Your task to perform on an android device: Open calendar and show me the third week of next month Image 0: 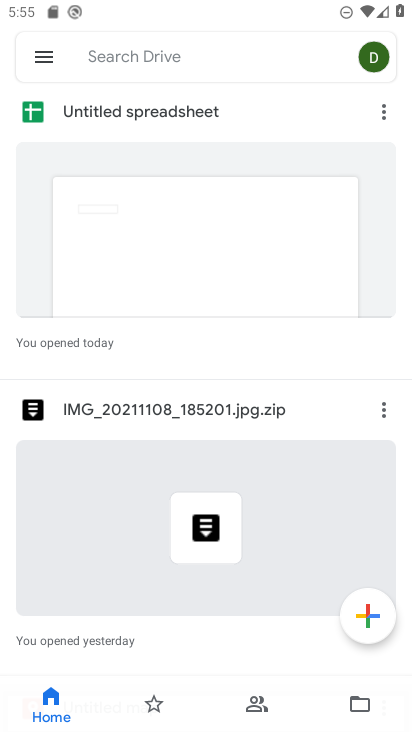
Step 0: press home button
Your task to perform on an android device: Open calendar and show me the third week of next month Image 1: 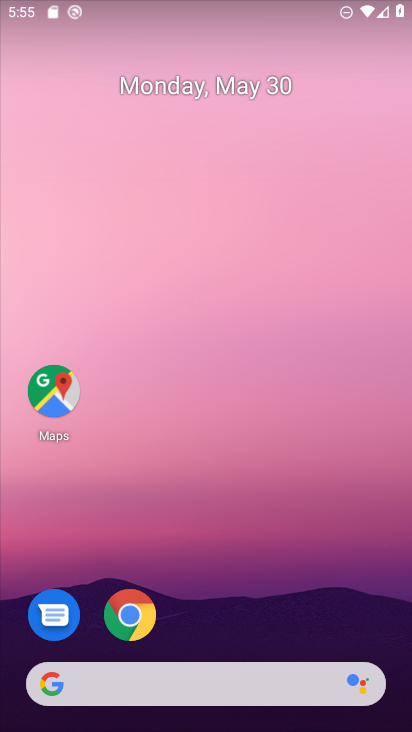
Step 1: click (182, 104)
Your task to perform on an android device: Open calendar and show me the third week of next month Image 2: 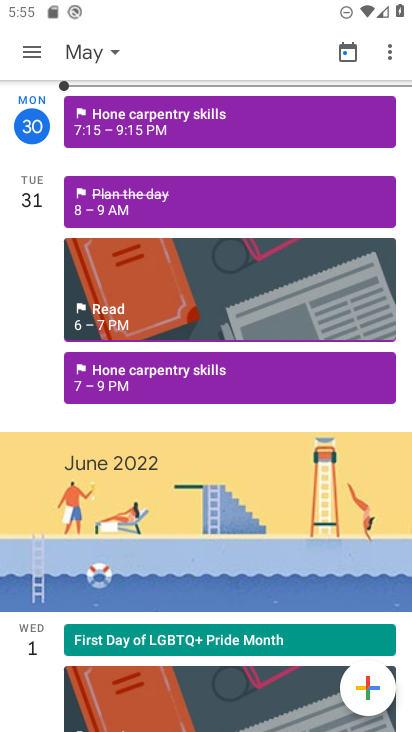
Step 2: click (116, 74)
Your task to perform on an android device: Open calendar and show me the third week of next month Image 3: 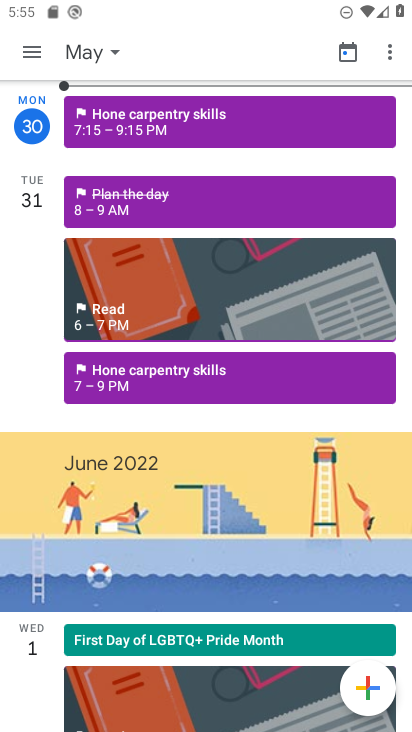
Step 3: click (89, 61)
Your task to perform on an android device: Open calendar and show me the third week of next month Image 4: 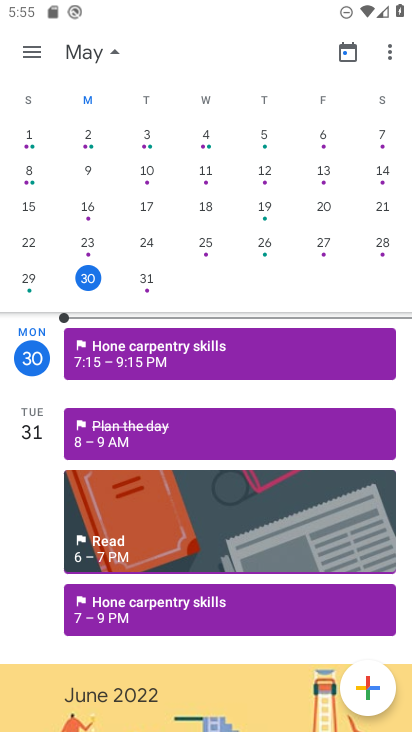
Step 4: drag from (384, 275) to (35, 268)
Your task to perform on an android device: Open calendar and show me the third week of next month Image 5: 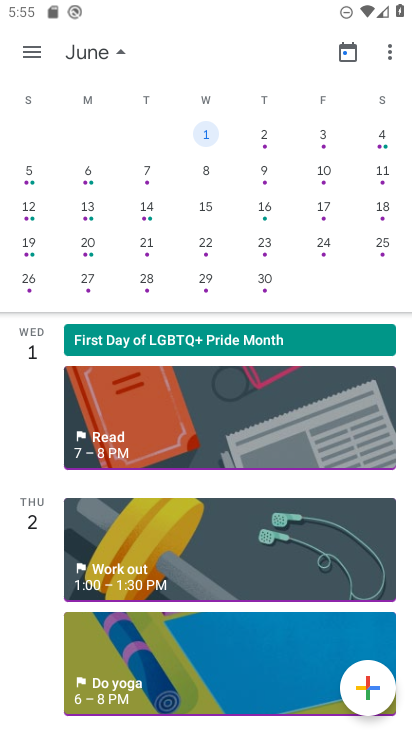
Step 5: click (265, 199)
Your task to perform on an android device: Open calendar and show me the third week of next month Image 6: 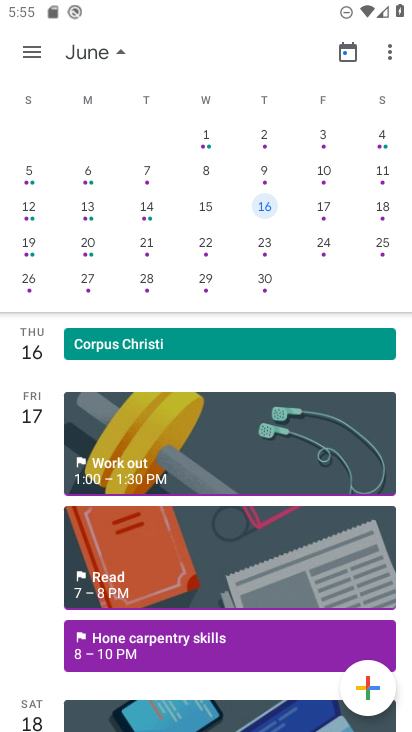
Step 6: task complete